Your task to perform on an android device: Go to eBay Image 0: 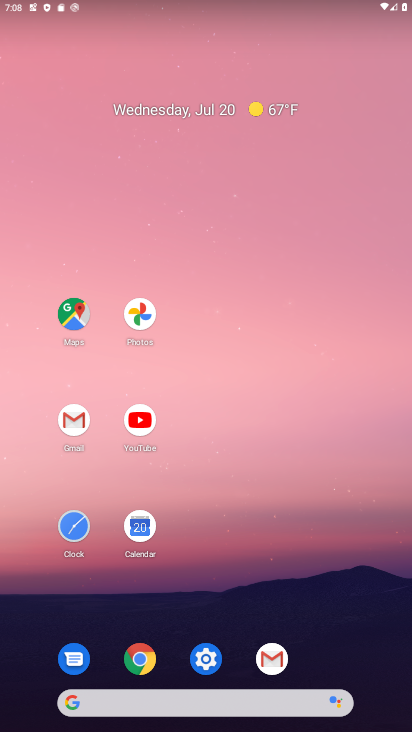
Step 0: click (139, 656)
Your task to perform on an android device: Go to eBay Image 1: 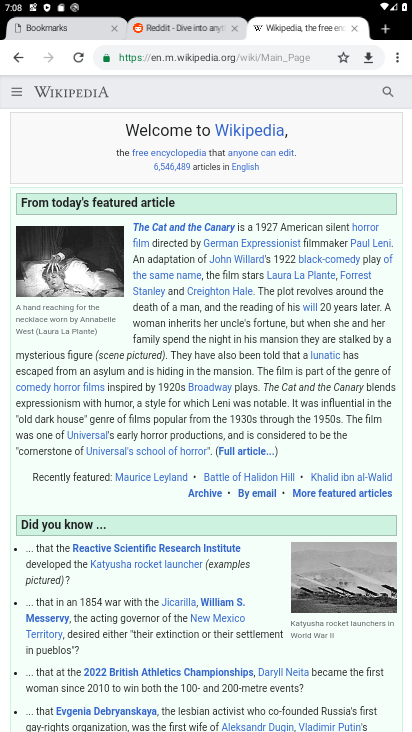
Step 1: click (402, 59)
Your task to perform on an android device: Go to eBay Image 2: 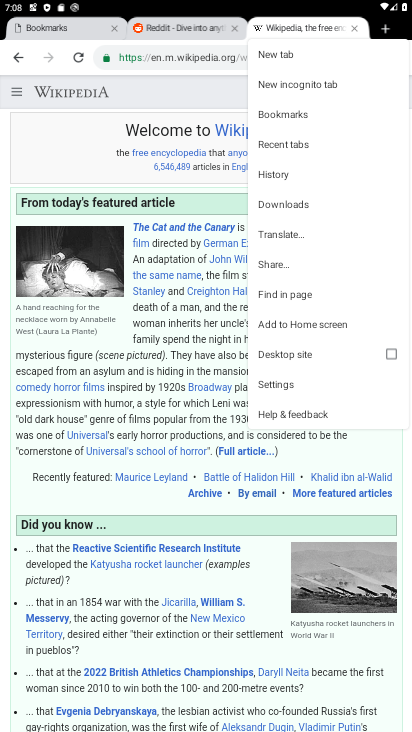
Step 2: click (292, 55)
Your task to perform on an android device: Go to eBay Image 3: 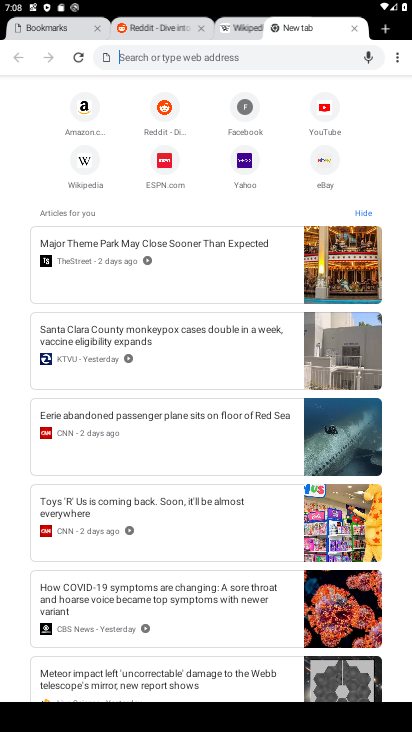
Step 3: click (320, 164)
Your task to perform on an android device: Go to eBay Image 4: 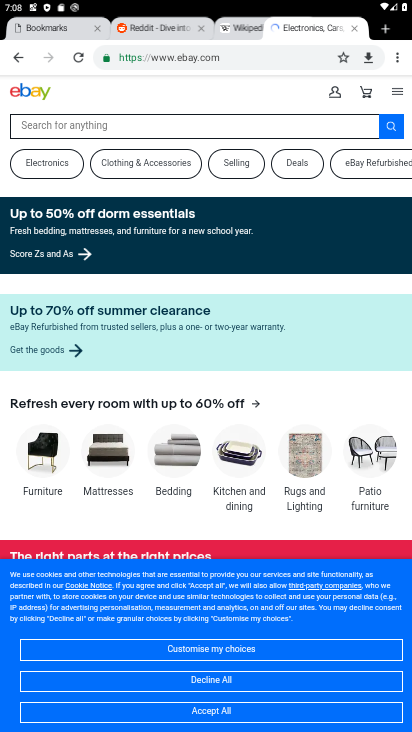
Step 4: task complete